Your task to perform on an android device: What's the weather going to be tomorrow? Image 0: 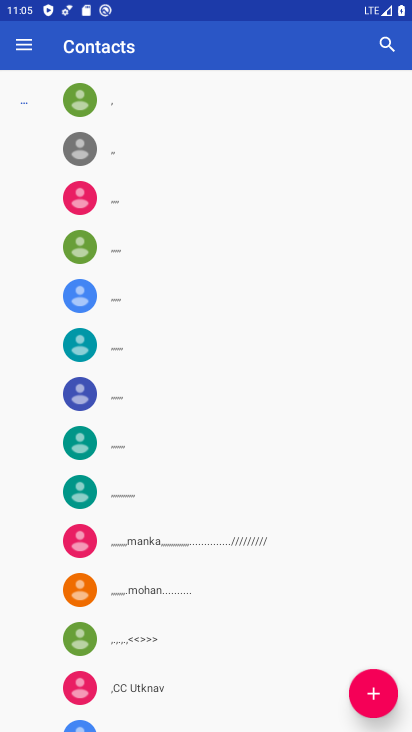
Step 0: press home button
Your task to perform on an android device: What's the weather going to be tomorrow? Image 1: 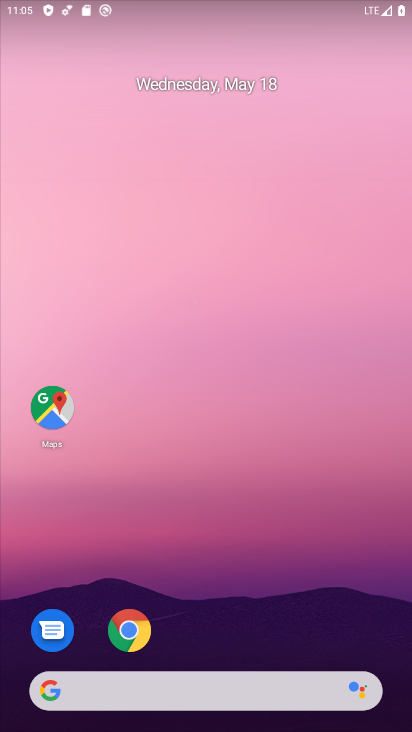
Step 1: click (224, 705)
Your task to perform on an android device: What's the weather going to be tomorrow? Image 2: 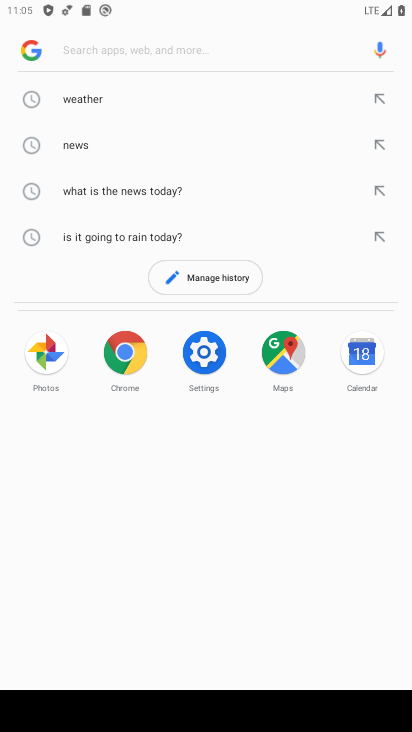
Step 2: click (87, 103)
Your task to perform on an android device: What's the weather going to be tomorrow? Image 3: 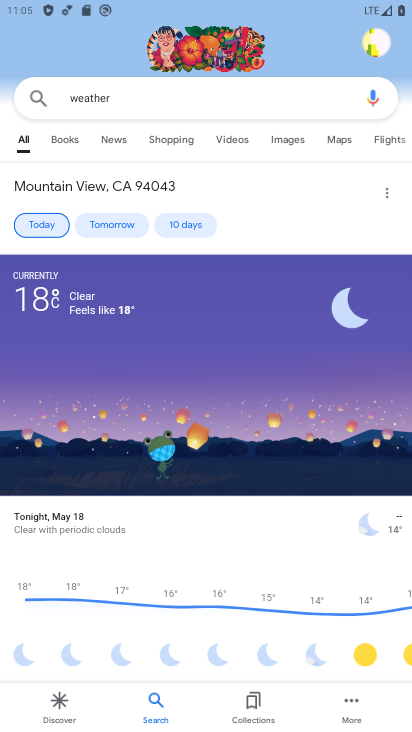
Step 3: click (111, 223)
Your task to perform on an android device: What's the weather going to be tomorrow? Image 4: 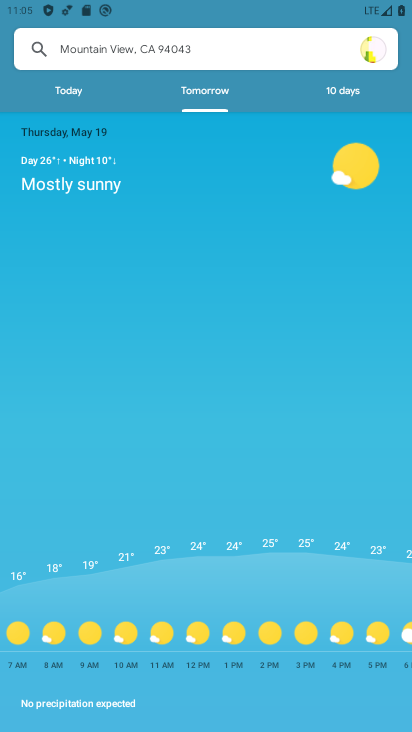
Step 4: task complete